Your task to perform on an android device: Open accessibility settings Image 0: 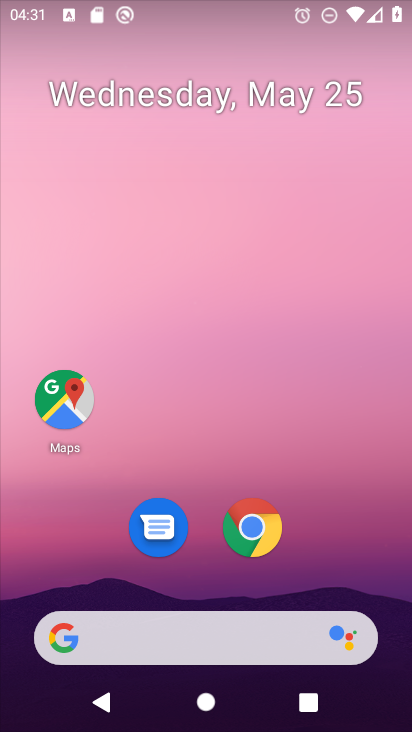
Step 0: drag from (235, 389) to (231, 59)
Your task to perform on an android device: Open accessibility settings Image 1: 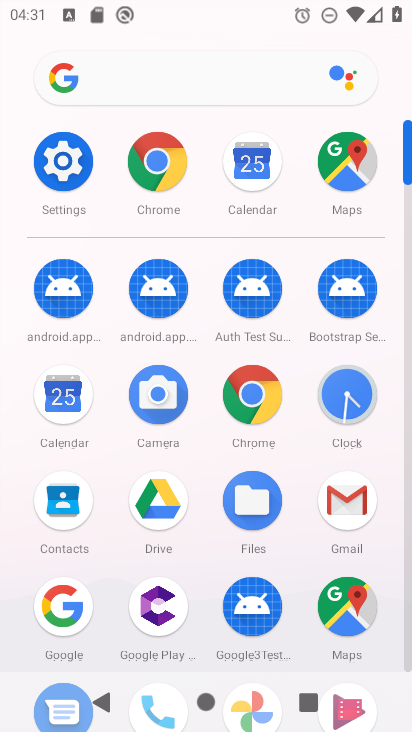
Step 1: click (63, 250)
Your task to perform on an android device: Open accessibility settings Image 2: 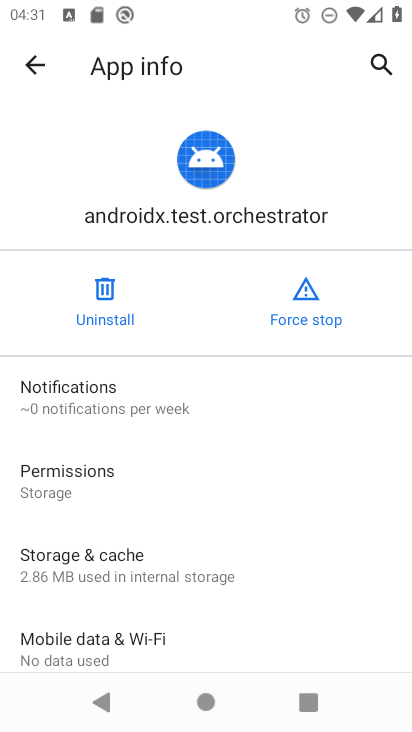
Step 2: press home button
Your task to perform on an android device: Open accessibility settings Image 3: 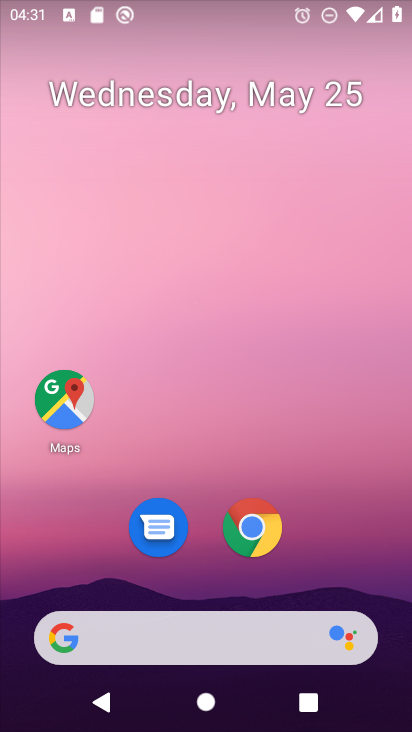
Step 3: drag from (197, 472) to (192, 93)
Your task to perform on an android device: Open accessibility settings Image 4: 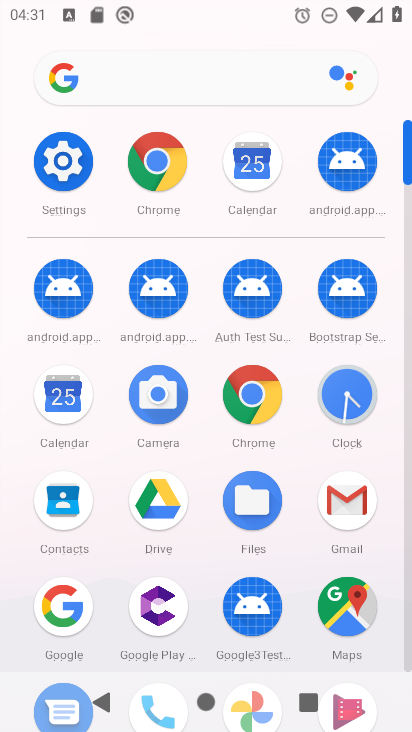
Step 4: click (65, 181)
Your task to perform on an android device: Open accessibility settings Image 5: 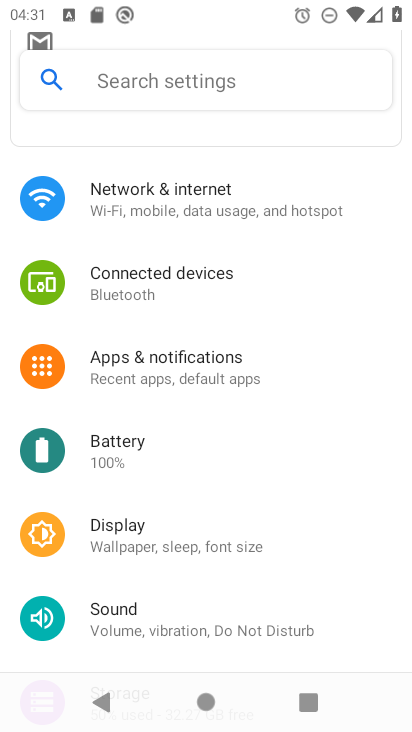
Step 5: drag from (266, 471) to (218, 128)
Your task to perform on an android device: Open accessibility settings Image 6: 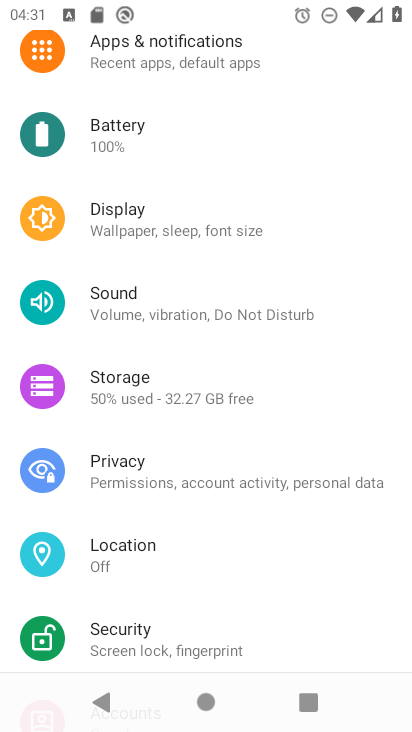
Step 6: drag from (275, 567) to (237, 293)
Your task to perform on an android device: Open accessibility settings Image 7: 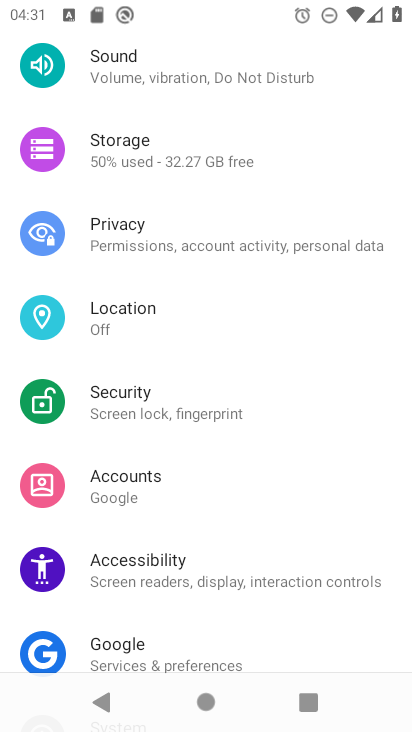
Step 7: click (166, 579)
Your task to perform on an android device: Open accessibility settings Image 8: 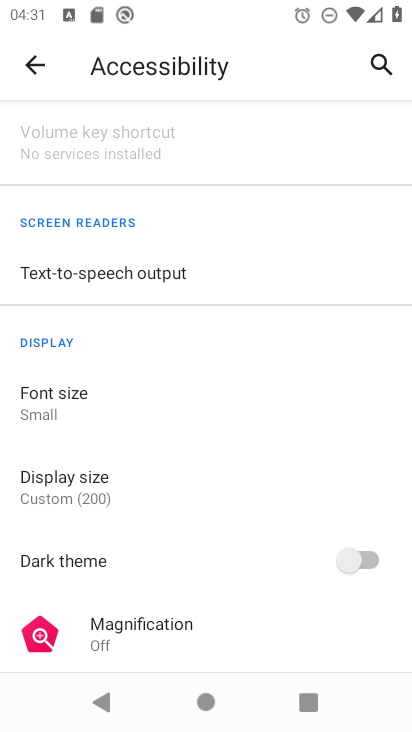
Step 8: task complete